Your task to perform on an android device: Go to battery settings Image 0: 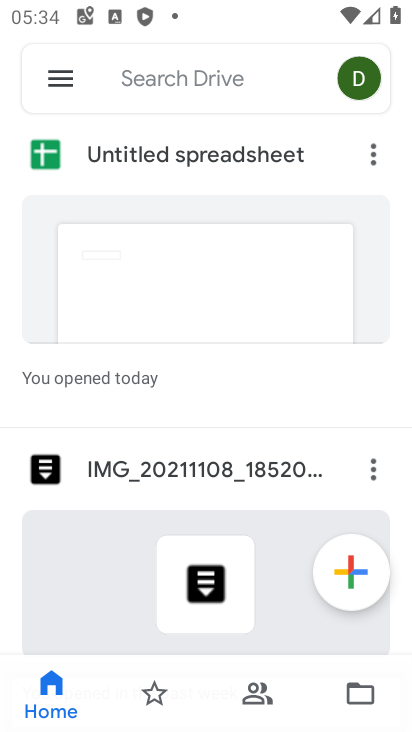
Step 0: press home button
Your task to perform on an android device: Go to battery settings Image 1: 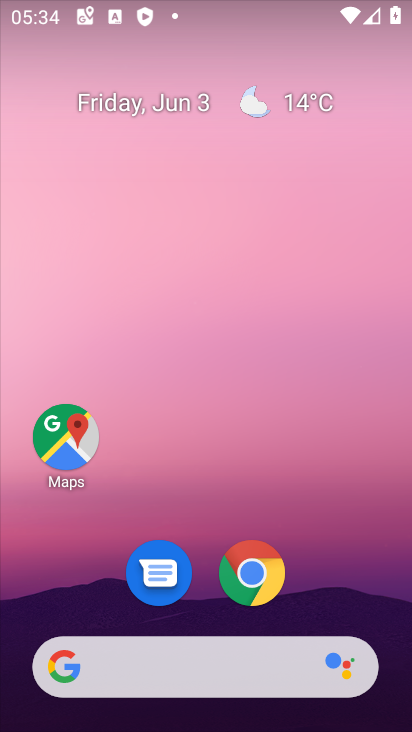
Step 1: drag from (294, 683) to (267, 5)
Your task to perform on an android device: Go to battery settings Image 2: 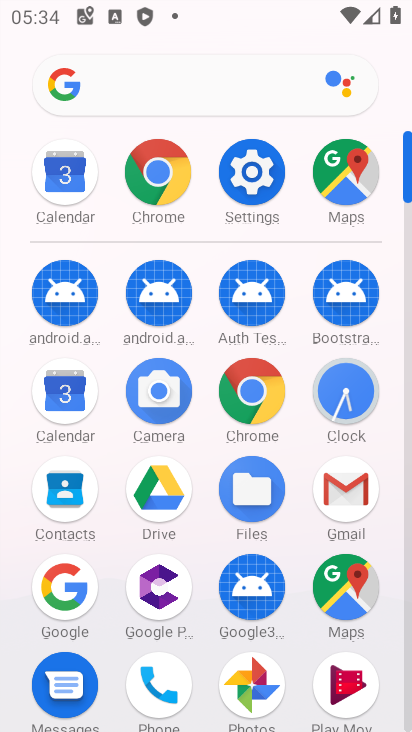
Step 2: click (251, 183)
Your task to perform on an android device: Go to battery settings Image 3: 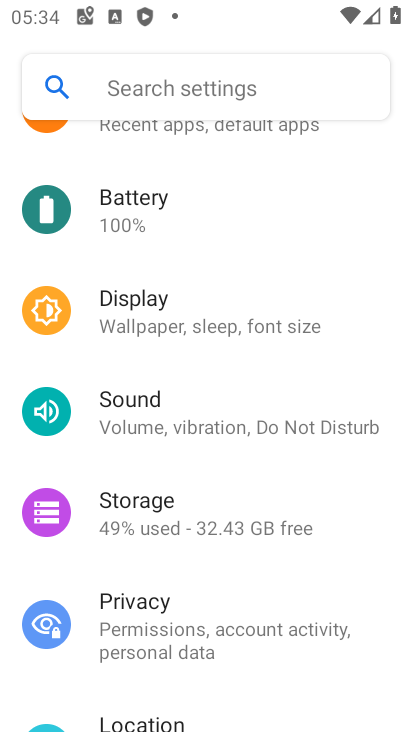
Step 3: click (187, 222)
Your task to perform on an android device: Go to battery settings Image 4: 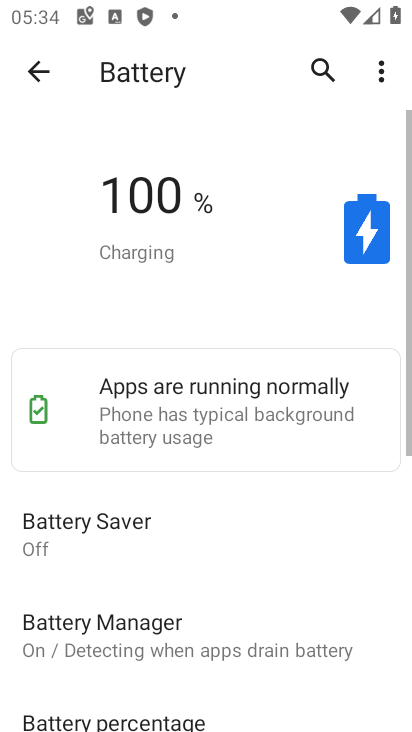
Step 4: task complete